Your task to perform on an android device: open chrome and create a bookmark for the current page Image 0: 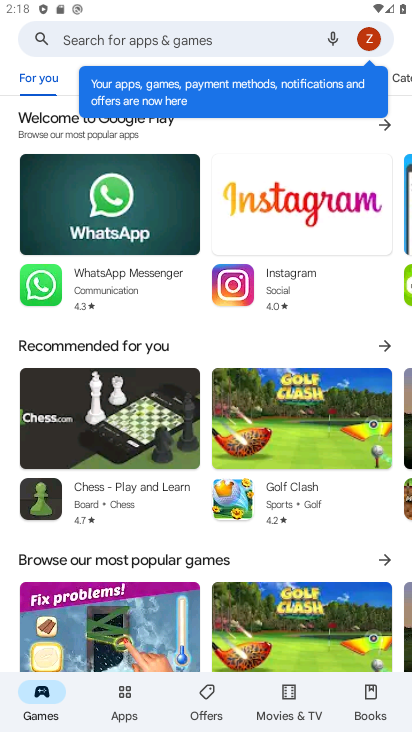
Step 0: press home button
Your task to perform on an android device: open chrome and create a bookmark for the current page Image 1: 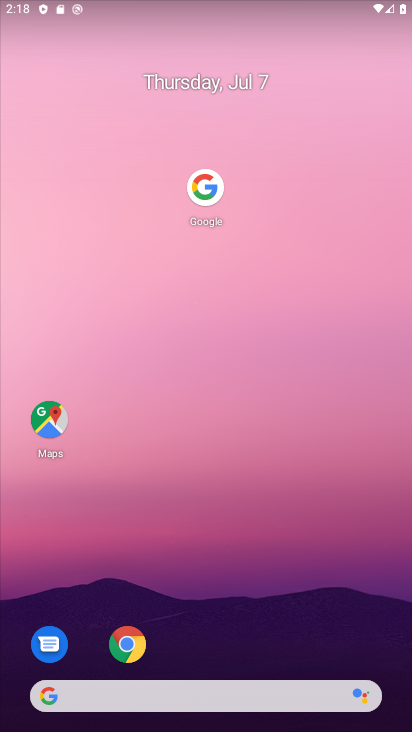
Step 1: click (127, 637)
Your task to perform on an android device: open chrome and create a bookmark for the current page Image 2: 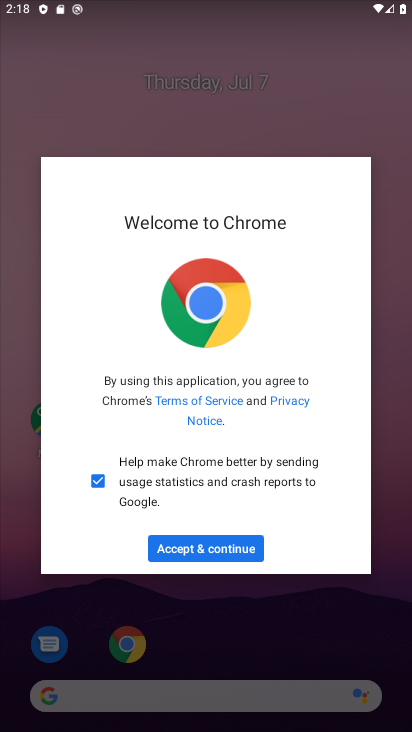
Step 2: click (203, 545)
Your task to perform on an android device: open chrome and create a bookmark for the current page Image 3: 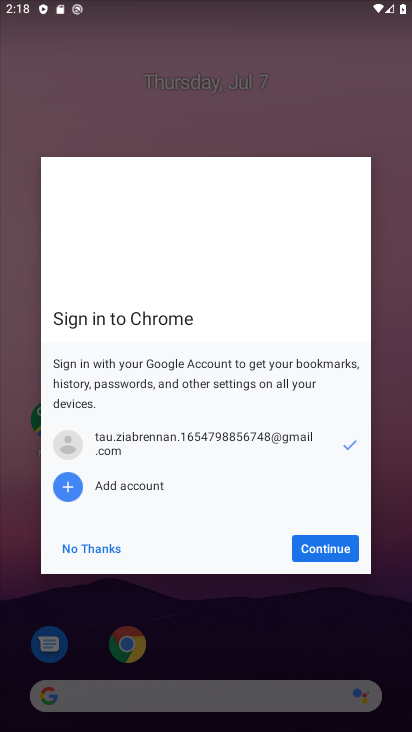
Step 3: click (322, 552)
Your task to perform on an android device: open chrome and create a bookmark for the current page Image 4: 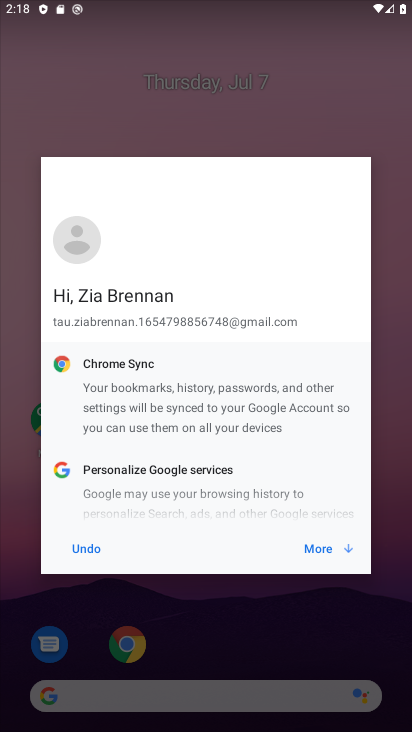
Step 4: click (324, 549)
Your task to perform on an android device: open chrome and create a bookmark for the current page Image 5: 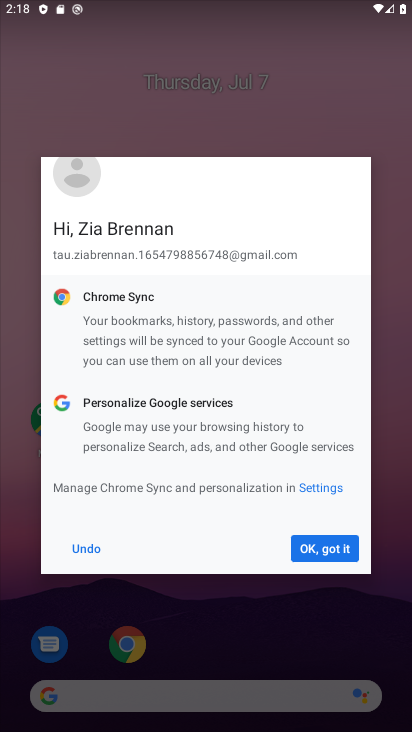
Step 5: click (326, 549)
Your task to perform on an android device: open chrome and create a bookmark for the current page Image 6: 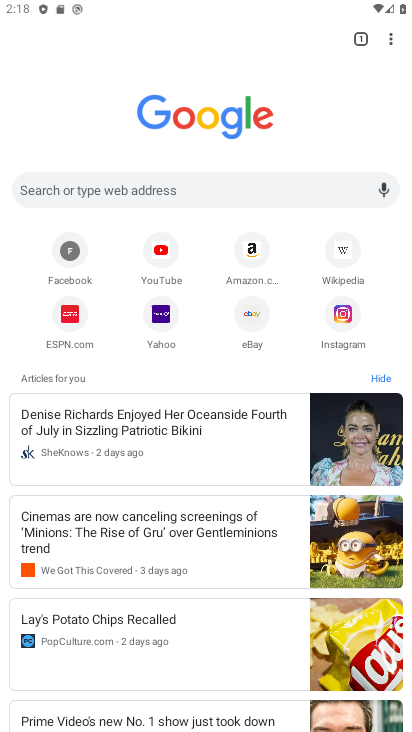
Step 6: click (388, 49)
Your task to perform on an android device: open chrome and create a bookmark for the current page Image 7: 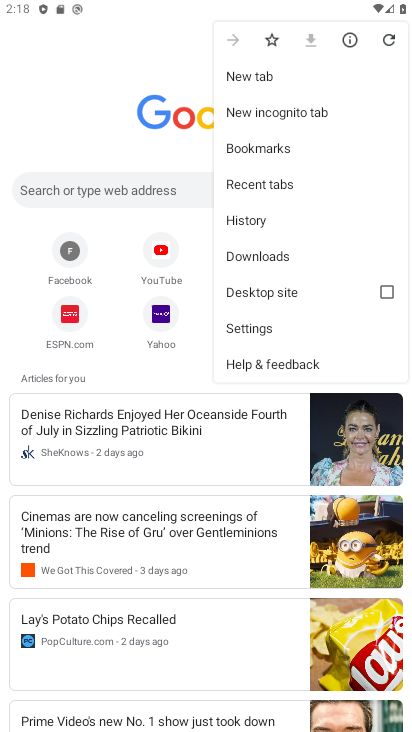
Step 7: click (273, 40)
Your task to perform on an android device: open chrome and create a bookmark for the current page Image 8: 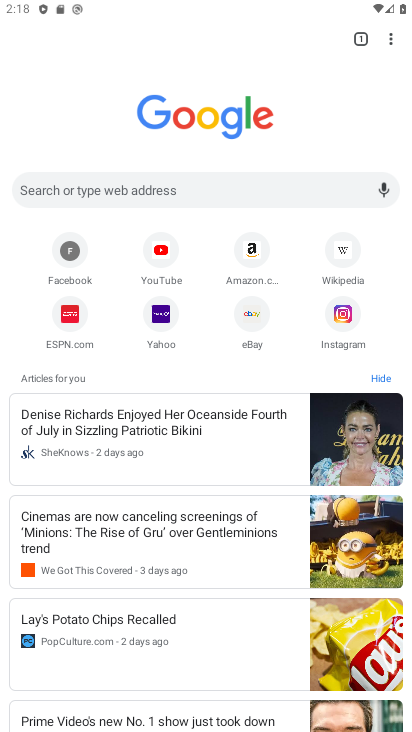
Step 8: task complete